Your task to perform on an android device: open device folders in google photos Image 0: 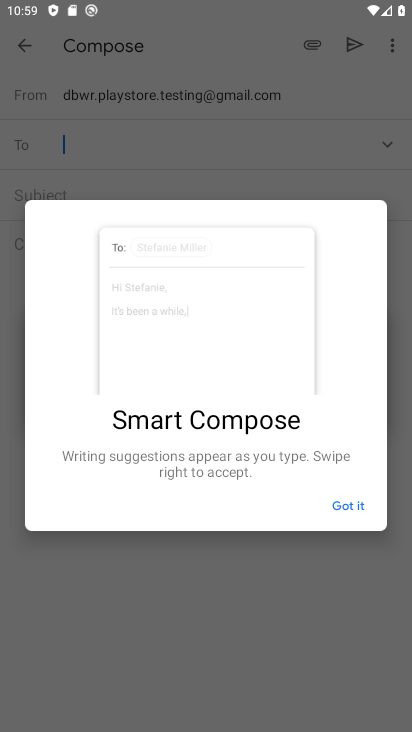
Step 0: press home button
Your task to perform on an android device: open device folders in google photos Image 1: 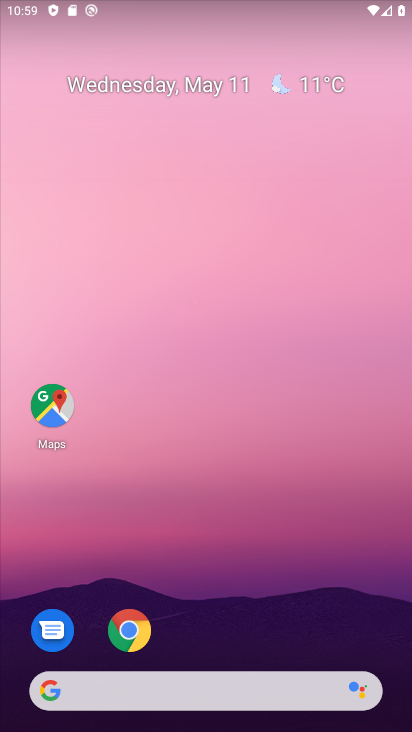
Step 1: drag from (170, 631) to (192, 241)
Your task to perform on an android device: open device folders in google photos Image 2: 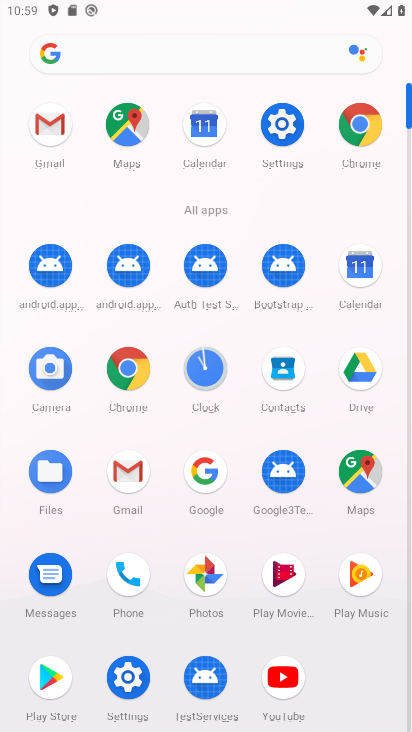
Step 2: click (208, 576)
Your task to perform on an android device: open device folders in google photos Image 3: 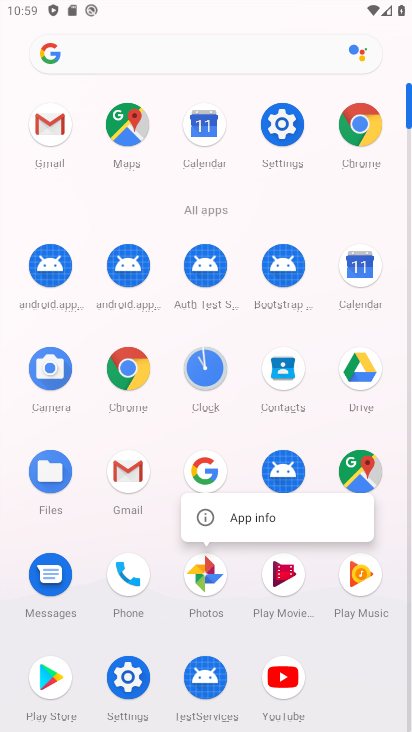
Step 3: click (196, 583)
Your task to perform on an android device: open device folders in google photos Image 4: 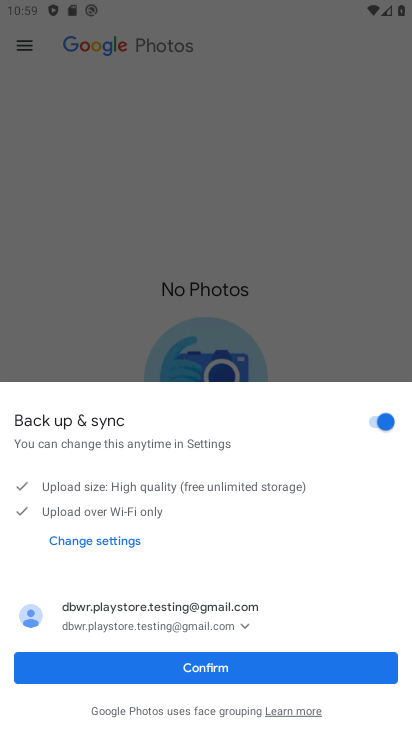
Step 4: click (186, 669)
Your task to perform on an android device: open device folders in google photos Image 5: 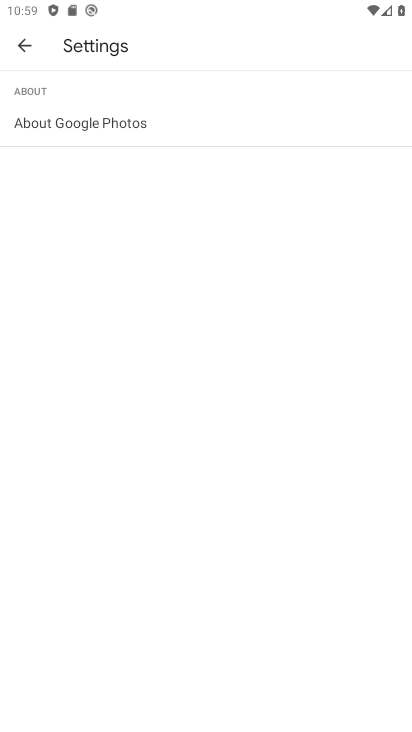
Step 5: click (120, 132)
Your task to perform on an android device: open device folders in google photos Image 6: 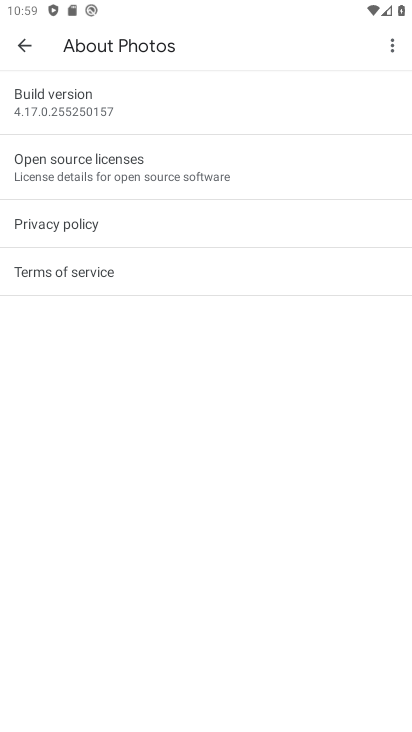
Step 6: click (28, 51)
Your task to perform on an android device: open device folders in google photos Image 7: 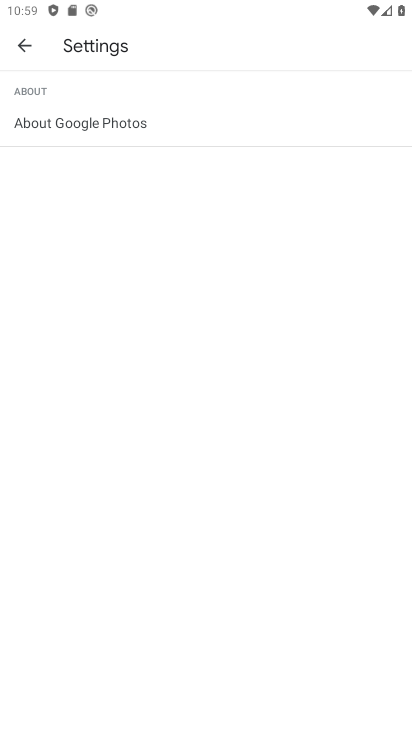
Step 7: click (18, 49)
Your task to perform on an android device: open device folders in google photos Image 8: 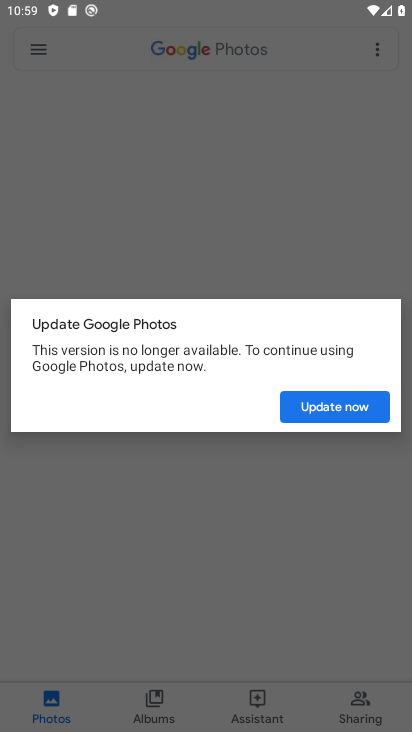
Step 8: click (342, 409)
Your task to perform on an android device: open device folders in google photos Image 9: 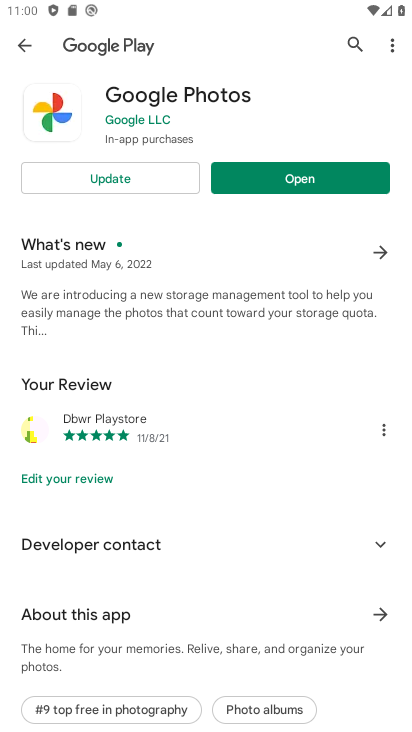
Step 9: click (137, 177)
Your task to perform on an android device: open device folders in google photos Image 10: 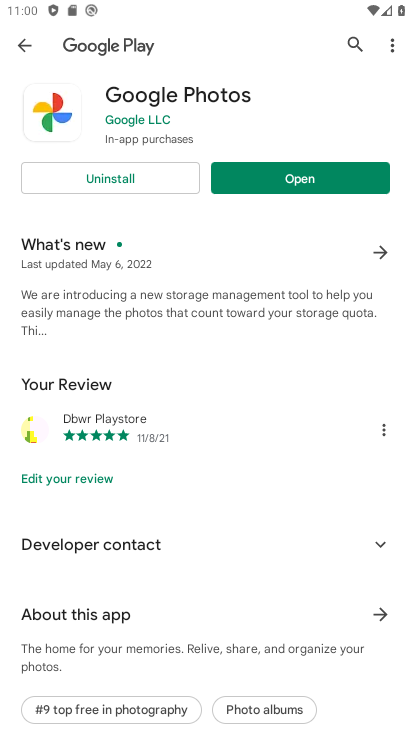
Step 10: click (306, 177)
Your task to perform on an android device: open device folders in google photos Image 11: 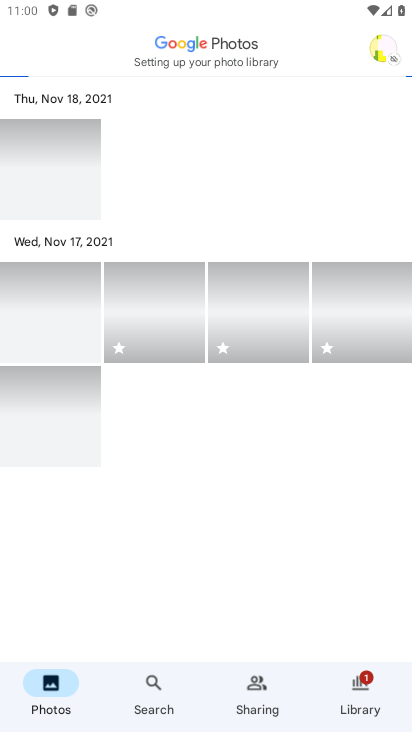
Step 11: click (153, 688)
Your task to perform on an android device: open device folders in google photos Image 12: 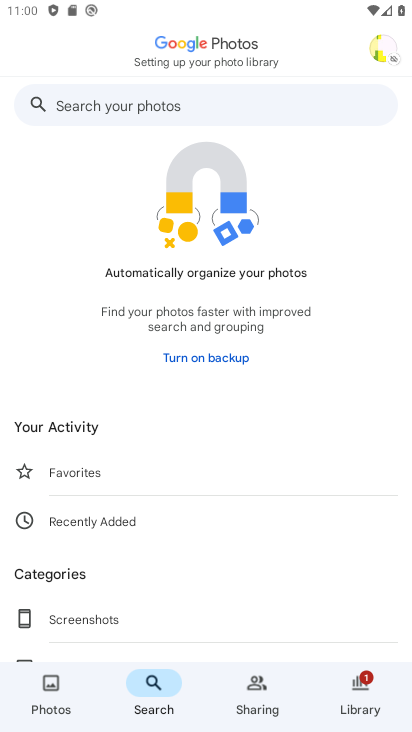
Step 12: click (185, 109)
Your task to perform on an android device: open device folders in google photos Image 13: 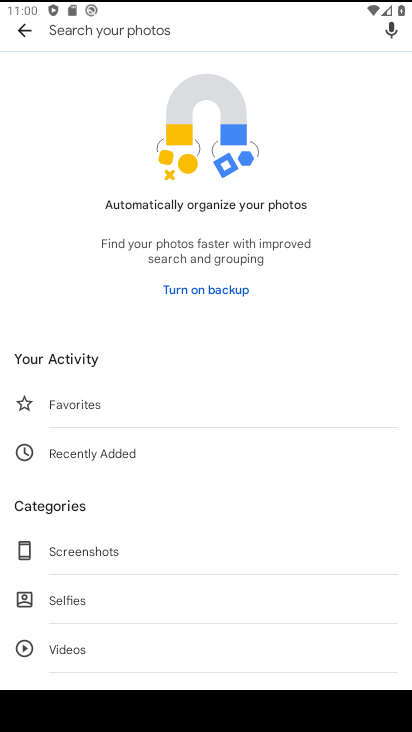
Step 13: type "device folder"
Your task to perform on an android device: open device folders in google photos Image 14: 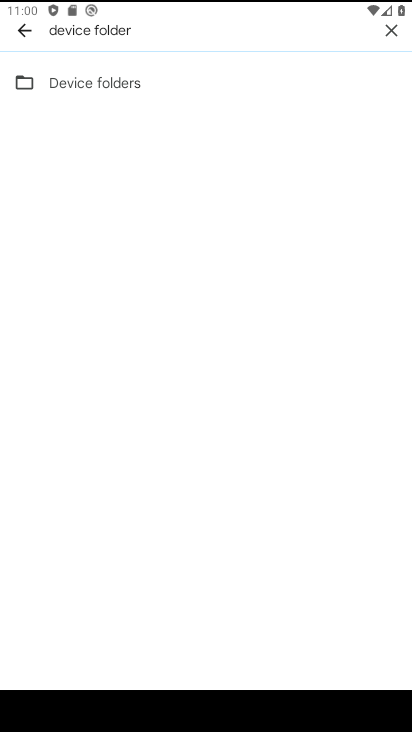
Step 14: click (112, 84)
Your task to perform on an android device: open device folders in google photos Image 15: 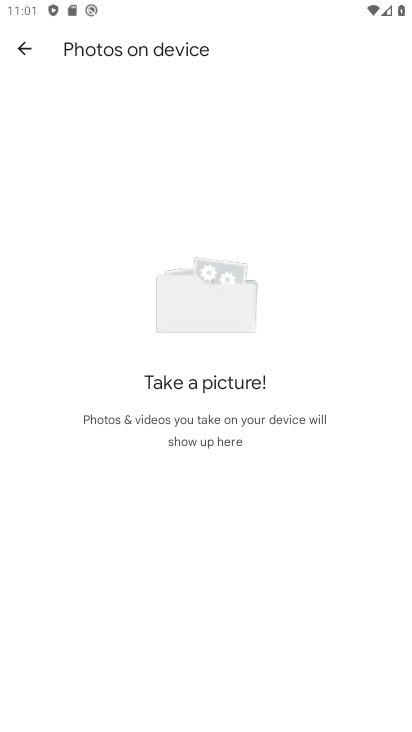
Step 15: task complete